Your task to perform on an android device: change notification settings in the gmail app Image 0: 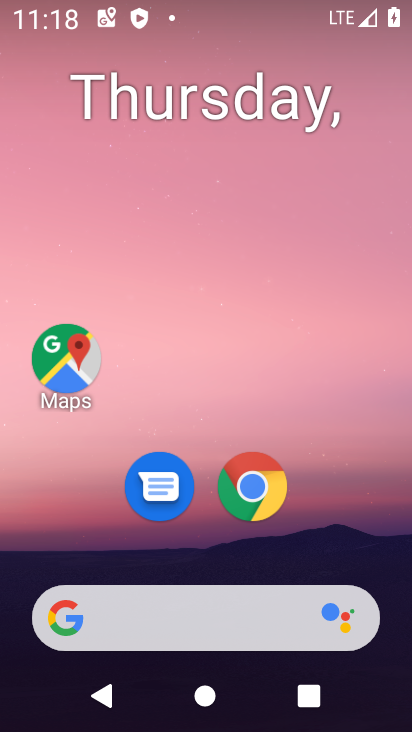
Step 0: drag from (177, 539) to (262, 10)
Your task to perform on an android device: change notification settings in the gmail app Image 1: 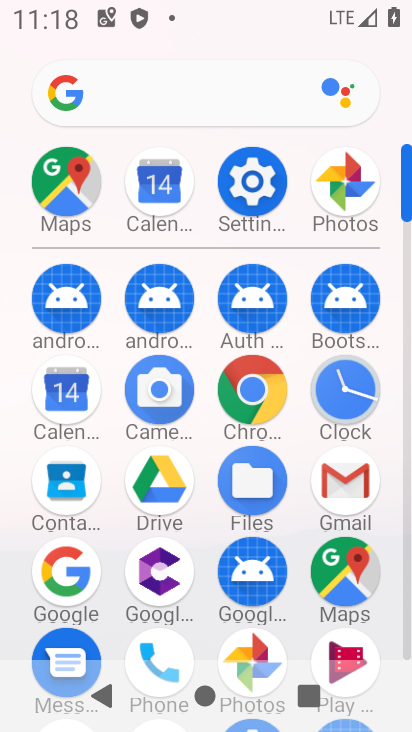
Step 1: click (264, 179)
Your task to perform on an android device: change notification settings in the gmail app Image 2: 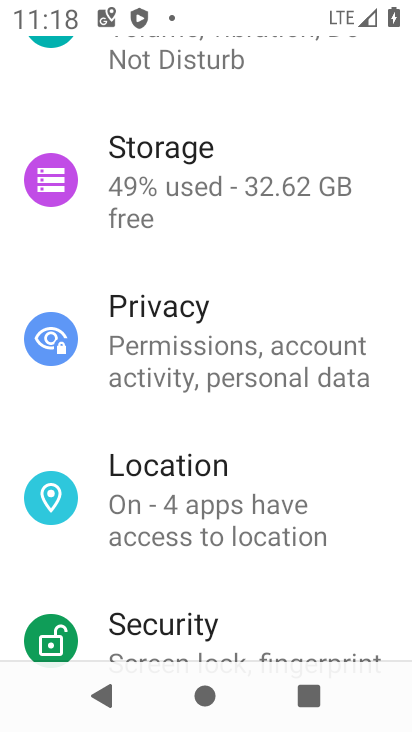
Step 2: press back button
Your task to perform on an android device: change notification settings in the gmail app Image 3: 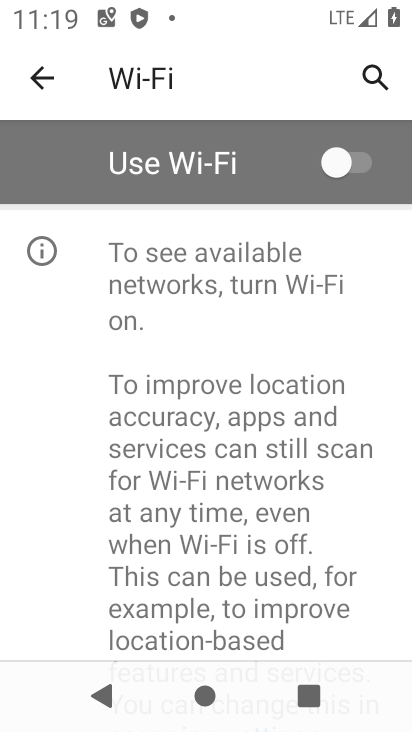
Step 3: press back button
Your task to perform on an android device: change notification settings in the gmail app Image 4: 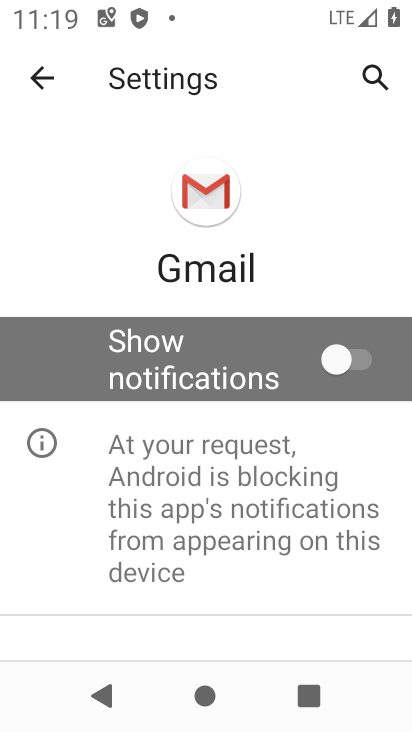
Step 4: press home button
Your task to perform on an android device: change notification settings in the gmail app Image 5: 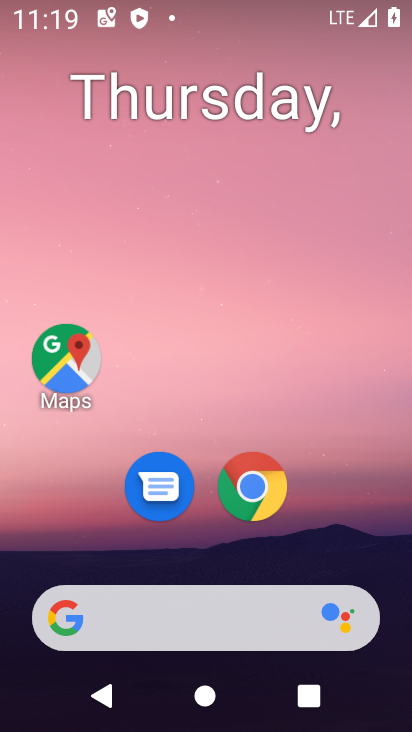
Step 5: drag from (158, 582) to (187, 18)
Your task to perform on an android device: change notification settings in the gmail app Image 6: 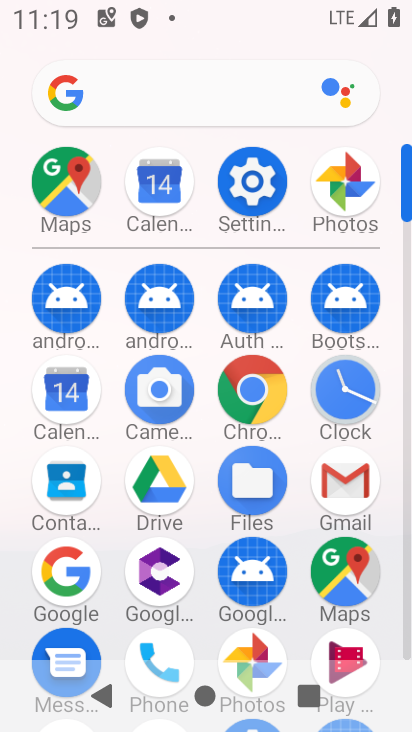
Step 6: click (348, 498)
Your task to perform on an android device: change notification settings in the gmail app Image 7: 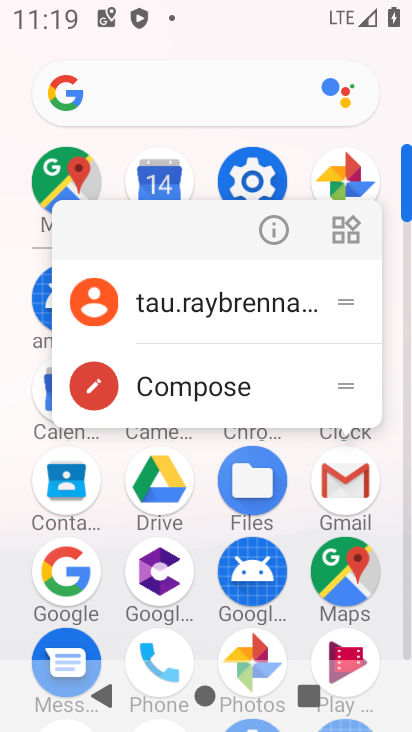
Step 7: click (255, 233)
Your task to perform on an android device: change notification settings in the gmail app Image 8: 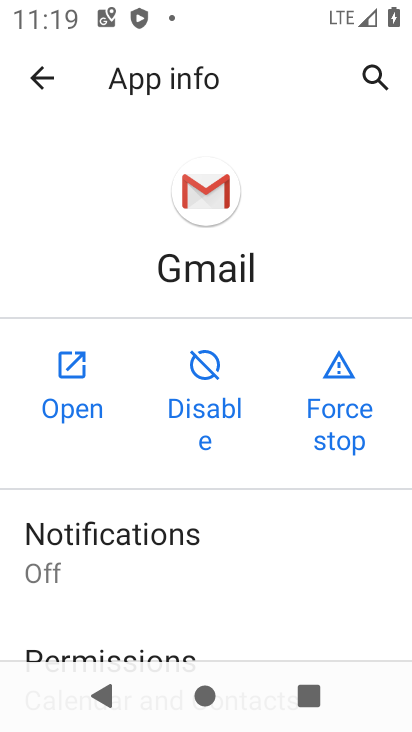
Step 8: click (114, 550)
Your task to perform on an android device: change notification settings in the gmail app Image 9: 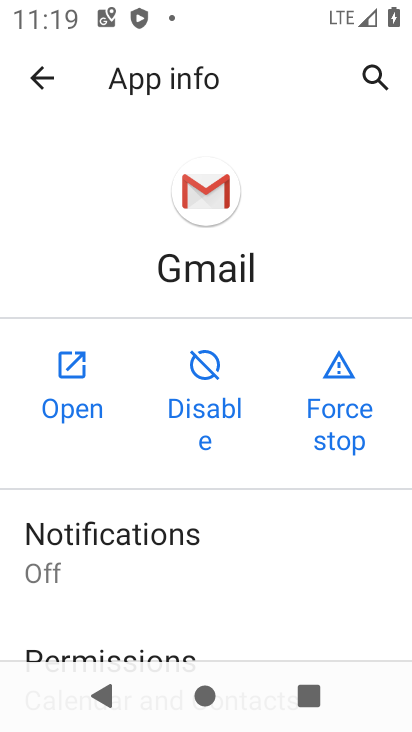
Step 9: click (169, 557)
Your task to perform on an android device: change notification settings in the gmail app Image 10: 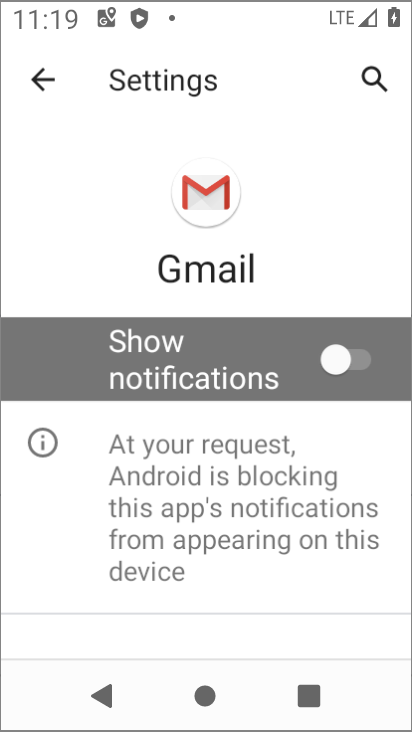
Step 10: drag from (170, 556) to (268, 97)
Your task to perform on an android device: change notification settings in the gmail app Image 11: 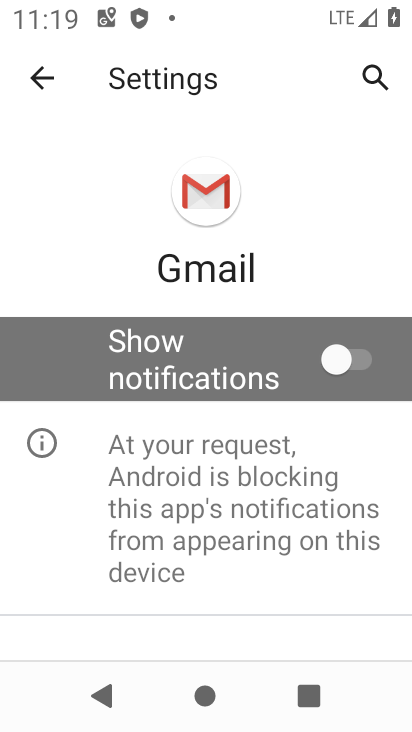
Step 11: drag from (244, 625) to (307, 164)
Your task to perform on an android device: change notification settings in the gmail app Image 12: 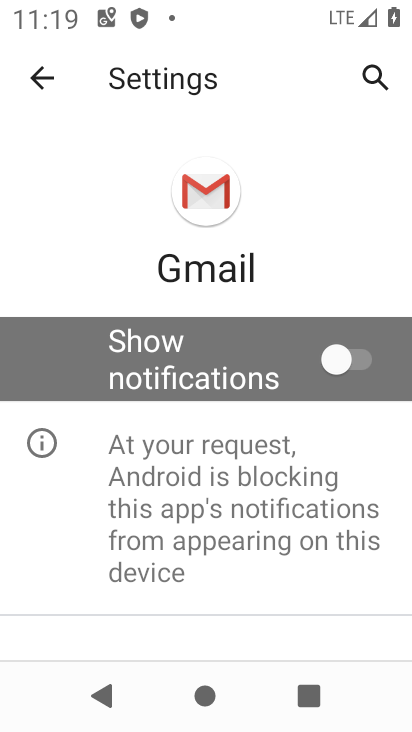
Step 12: click (335, 350)
Your task to perform on an android device: change notification settings in the gmail app Image 13: 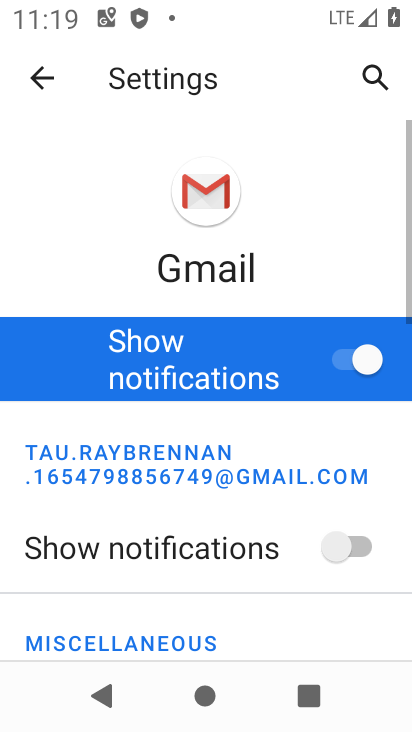
Step 13: task complete